Your task to perform on an android device: turn notification dots on Image 0: 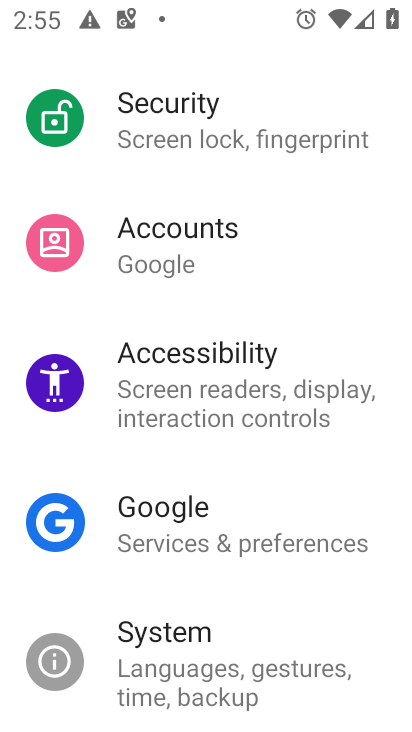
Step 0: drag from (266, 226) to (256, 607)
Your task to perform on an android device: turn notification dots on Image 1: 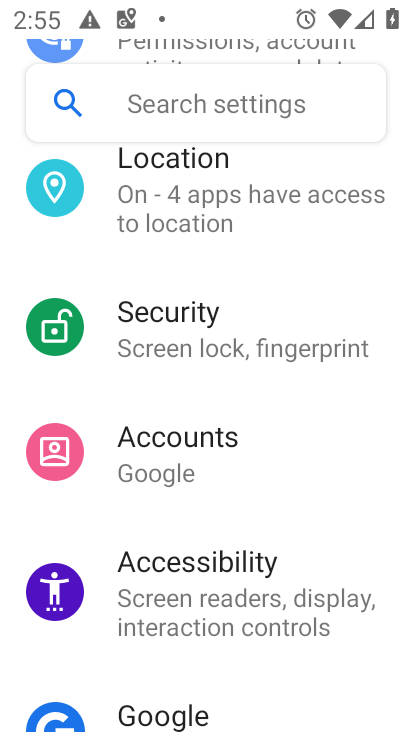
Step 1: drag from (276, 242) to (245, 624)
Your task to perform on an android device: turn notification dots on Image 2: 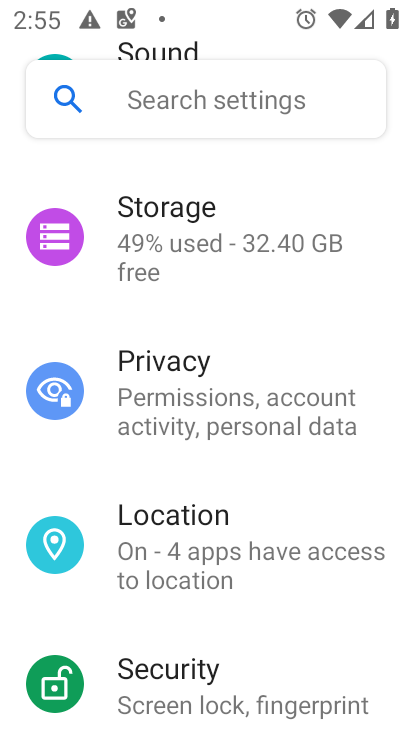
Step 2: drag from (291, 209) to (252, 582)
Your task to perform on an android device: turn notification dots on Image 3: 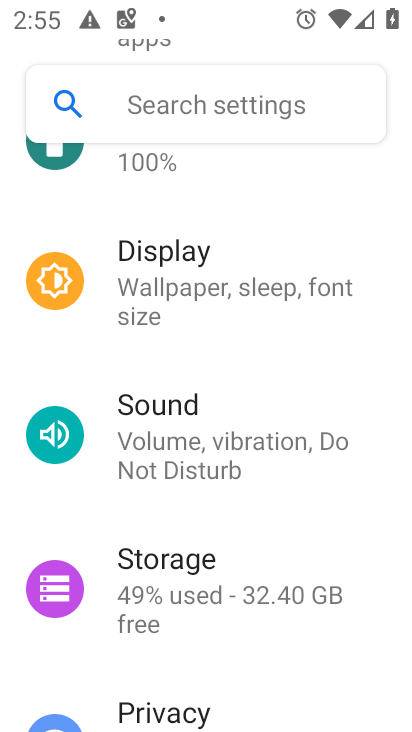
Step 3: drag from (280, 210) to (232, 550)
Your task to perform on an android device: turn notification dots on Image 4: 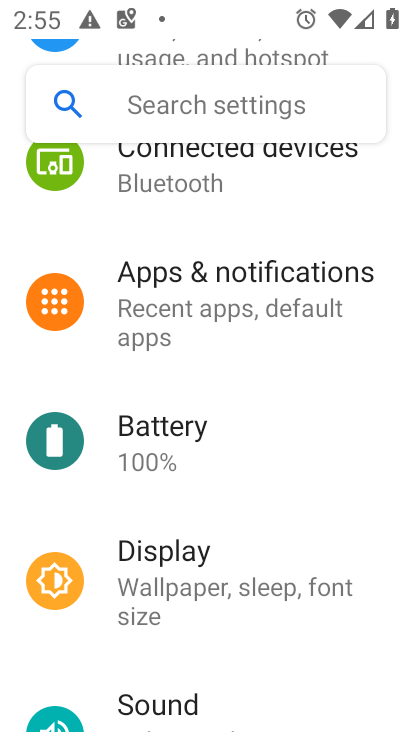
Step 4: click (232, 274)
Your task to perform on an android device: turn notification dots on Image 5: 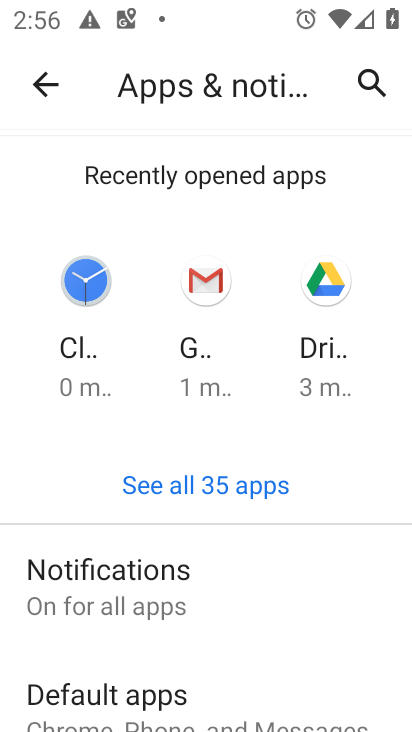
Step 5: click (164, 579)
Your task to perform on an android device: turn notification dots on Image 6: 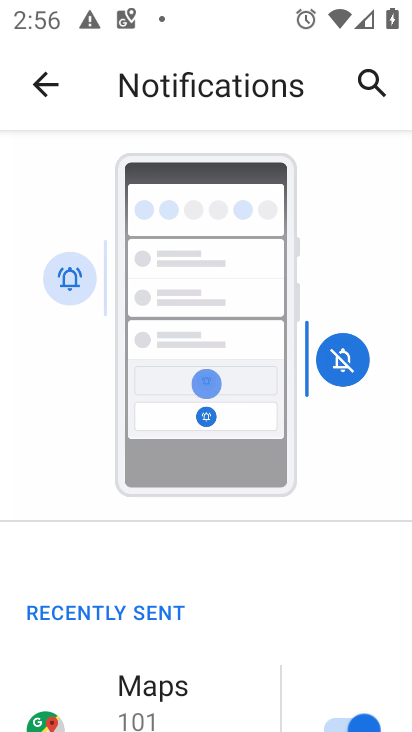
Step 6: drag from (237, 580) to (299, 146)
Your task to perform on an android device: turn notification dots on Image 7: 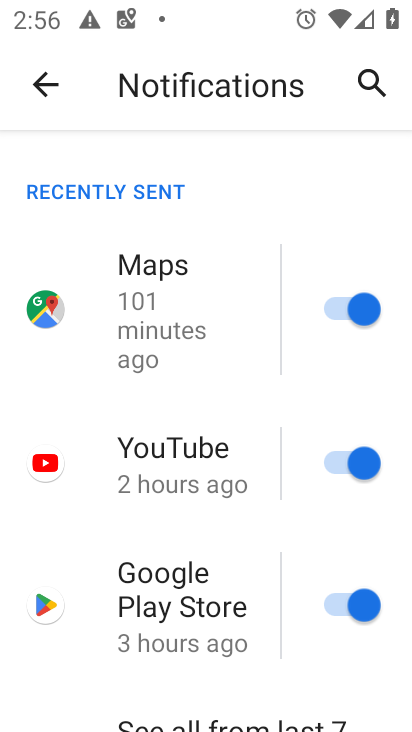
Step 7: drag from (222, 657) to (271, 155)
Your task to perform on an android device: turn notification dots on Image 8: 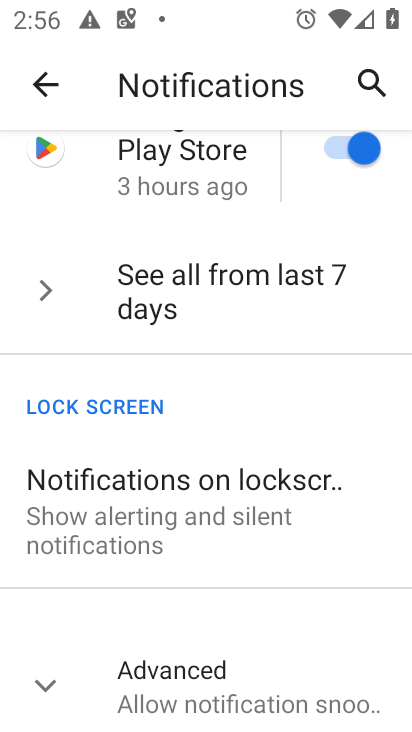
Step 8: drag from (211, 639) to (302, 120)
Your task to perform on an android device: turn notification dots on Image 9: 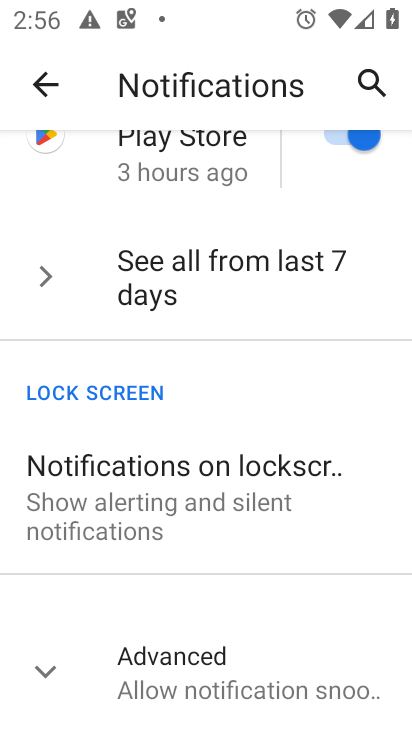
Step 9: click (186, 689)
Your task to perform on an android device: turn notification dots on Image 10: 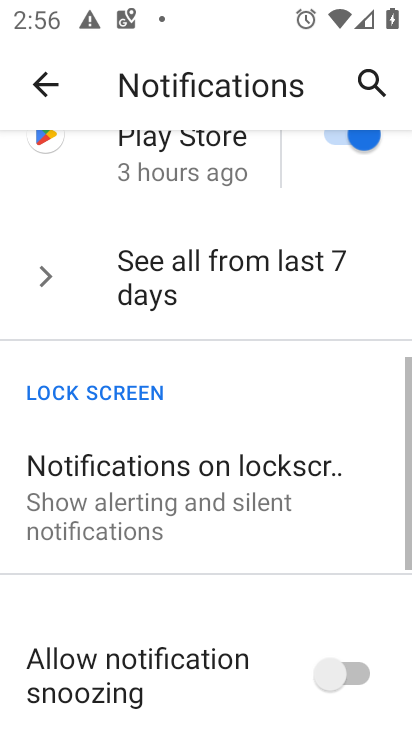
Step 10: task complete